Your task to perform on an android device: check google app version Image 0: 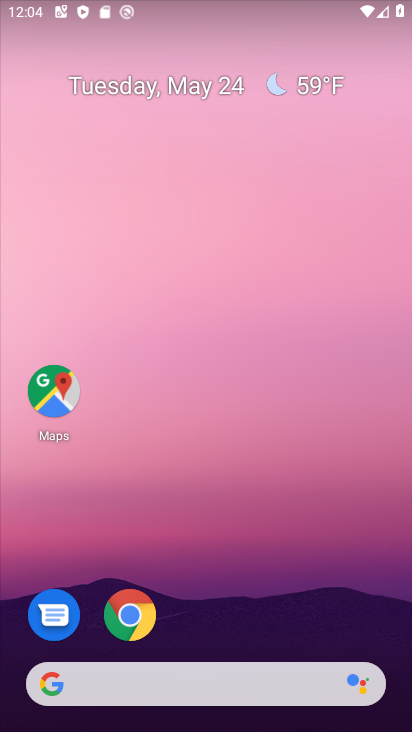
Step 0: drag from (240, 591) to (192, 70)
Your task to perform on an android device: check google app version Image 1: 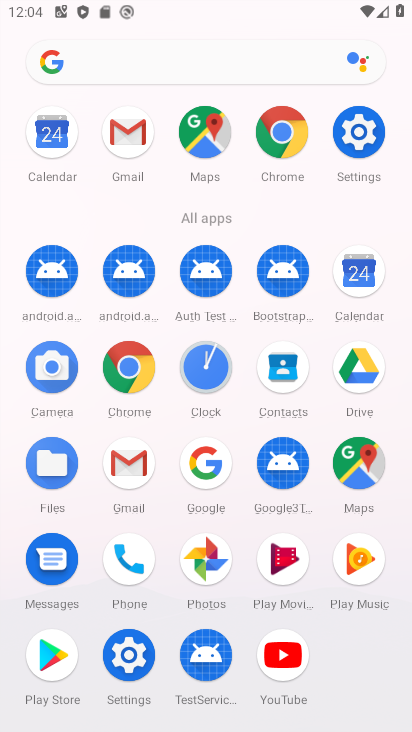
Step 1: drag from (7, 614) to (6, 298)
Your task to perform on an android device: check google app version Image 2: 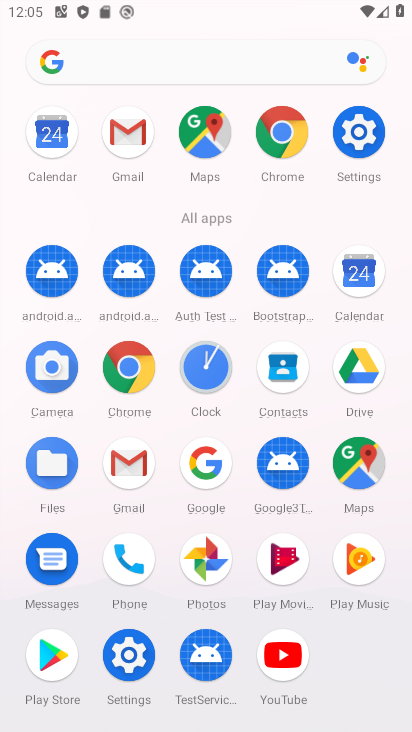
Step 2: click (205, 462)
Your task to perform on an android device: check google app version Image 3: 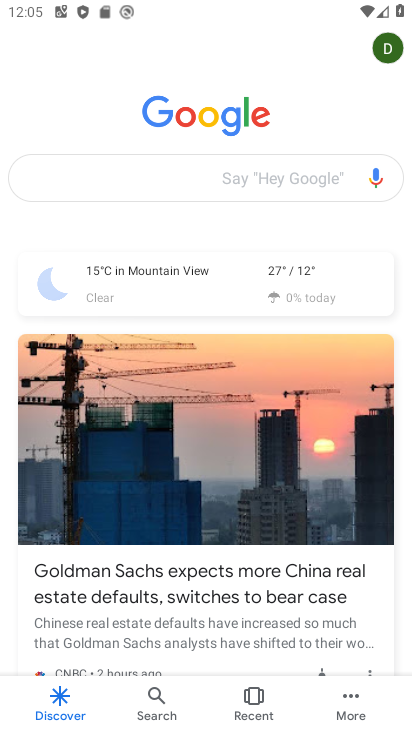
Step 3: click (346, 690)
Your task to perform on an android device: check google app version Image 4: 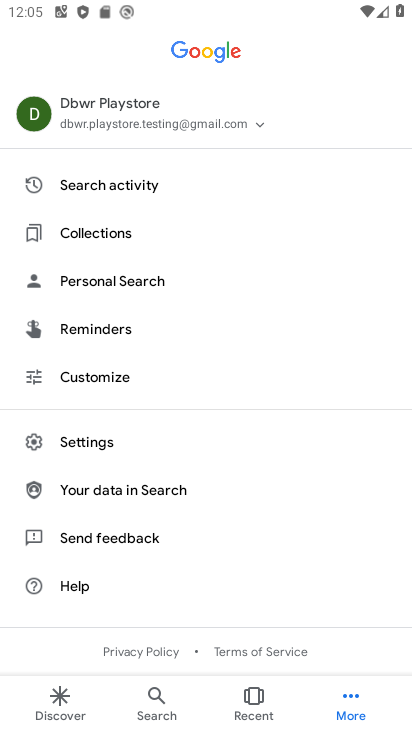
Step 4: click (83, 435)
Your task to perform on an android device: check google app version Image 5: 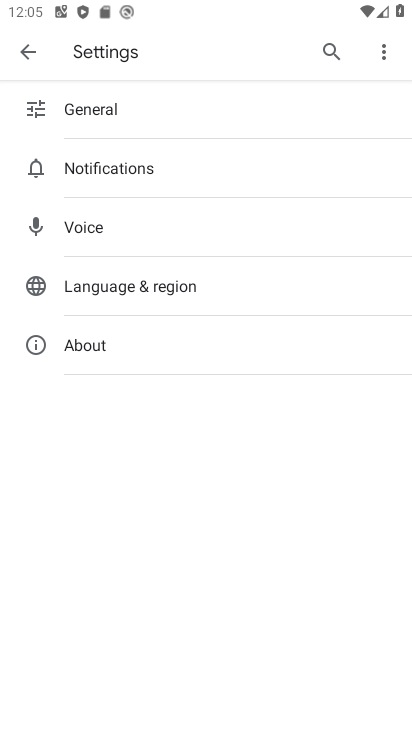
Step 5: click (108, 328)
Your task to perform on an android device: check google app version Image 6: 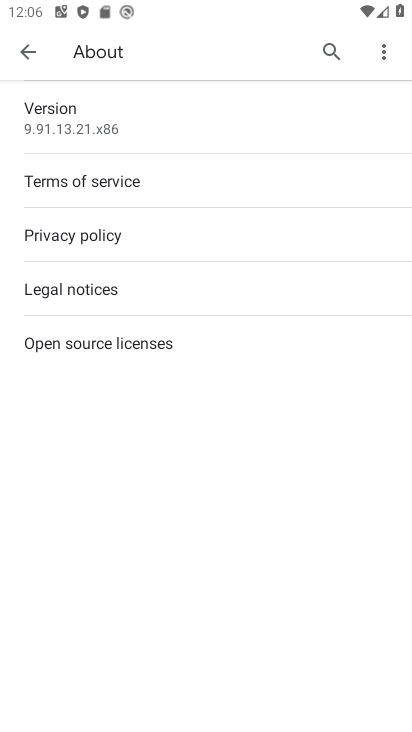
Step 6: task complete